Your task to perform on an android device: Open location settings Image 0: 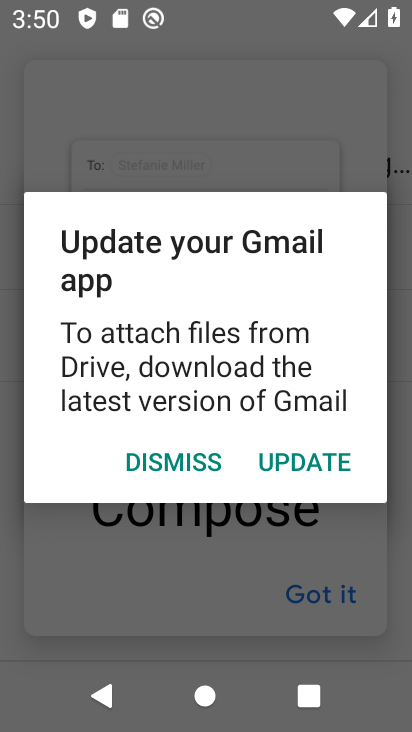
Step 0: press home button
Your task to perform on an android device: Open location settings Image 1: 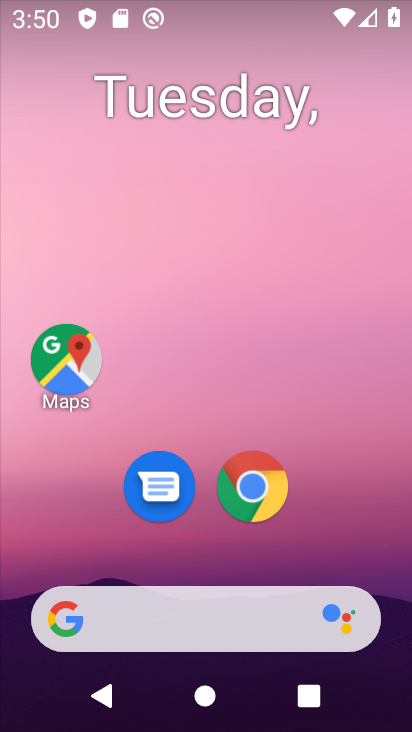
Step 1: drag from (314, 543) to (312, 109)
Your task to perform on an android device: Open location settings Image 2: 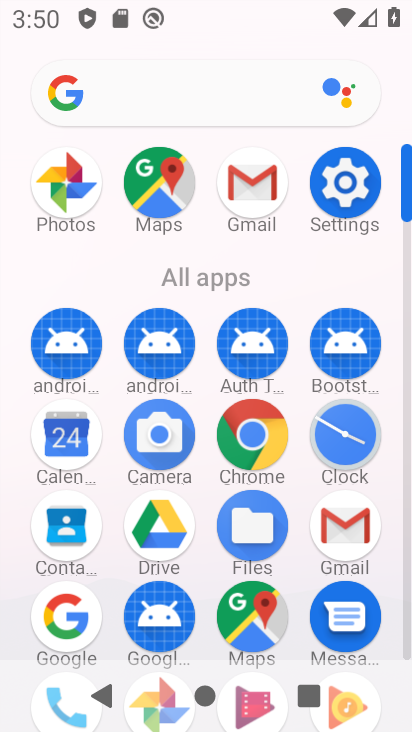
Step 2: click (338, 183)
Your task to perform on an android device: Open location settings Image 3: 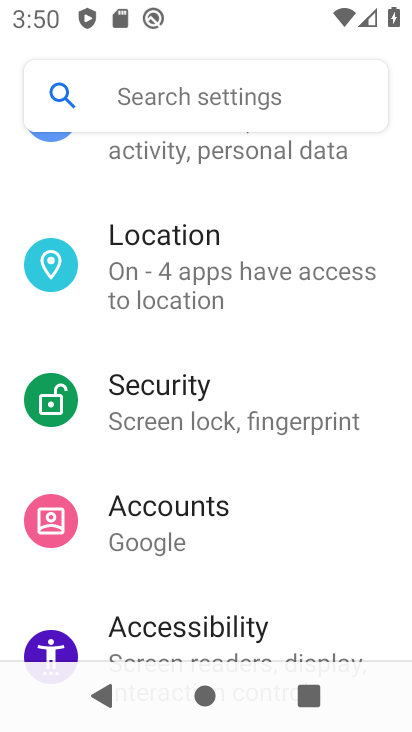
Step 3: click (217, 282)
Your task to perform on an android device: Open location settings Image 4: 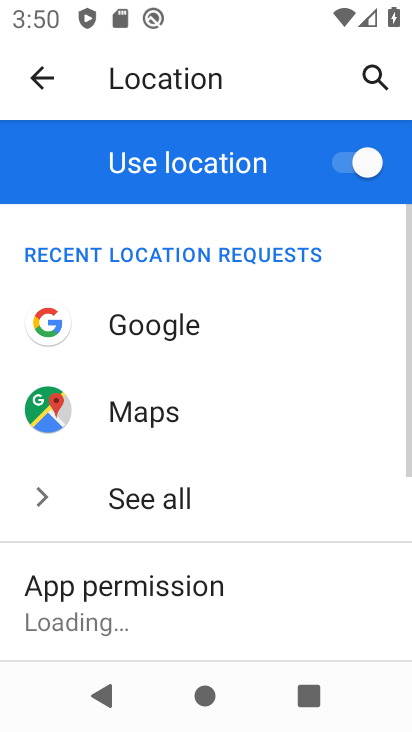
Step 4: task complete